Your task to perform on an android device: open app "Firefox Browser" (install if not already installed) Image 0: 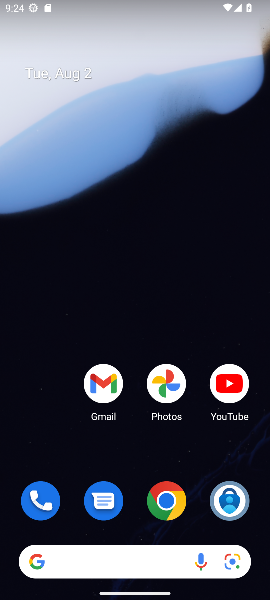
Step 0: drag from (132, 540) to (143, 174)
Your task to perform on an android device: open app "Firefox Browser" (install if not already installed) Image 1: 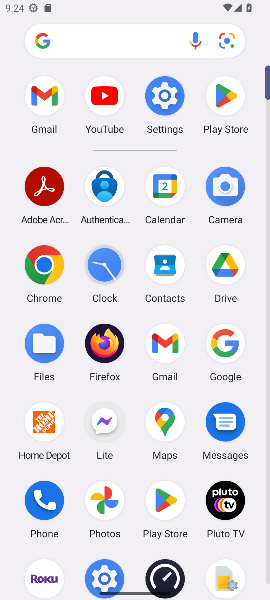
Step 1: click (220, 92)
Your task to perform on an android device: open app "Firefox Browser" (install if not already installed) Image 2: 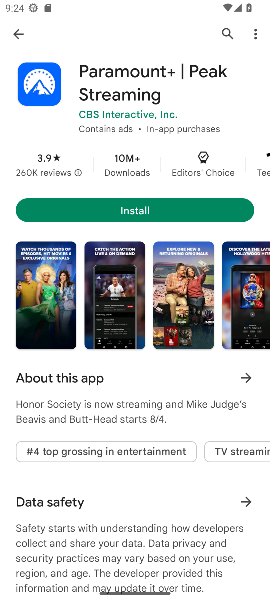
Step 2: click (226, 39)
Your task to perform on an android device: open app "Firefox Browser" (install if not already installed) Image 3: 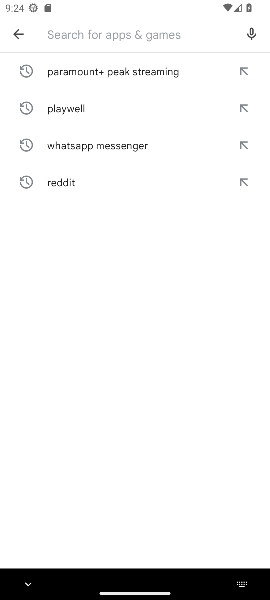
Step 3: type "Firefox Browser"
Your task to perform on an android device: open app "Firefox Browser" (install if not already installed) Image 4: 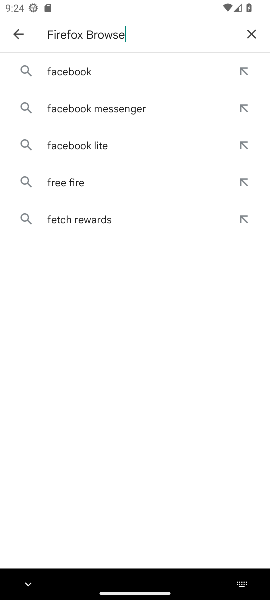
Step 4: type ""
Your task to perform on an android device: open app "Firefox Browser" (install if not already installed) Image 5: 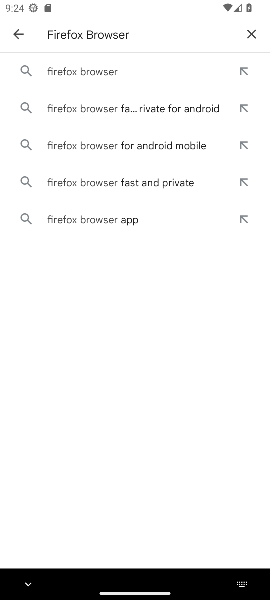
Step 5: click (64, 72)
Your task to perform on an android device: open app "Firefox Browser" (install if not already installed) Image 6: 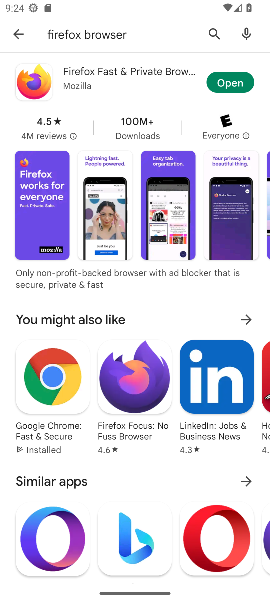
Step 6: click (74, 72)
Your task to perform on an android device: open app "Firefox Browser" (install if not already installed) Image 7: 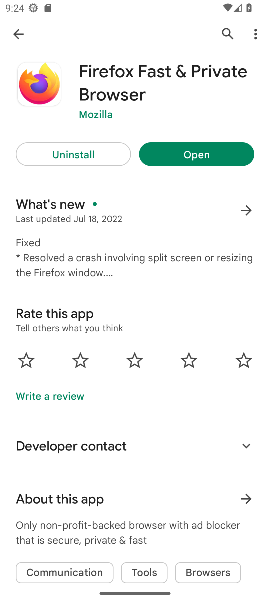
Step 7: click (197, 150)
Your task to perform on an android device: open app "Firefox Browser" (install if not already installed) Image 8: 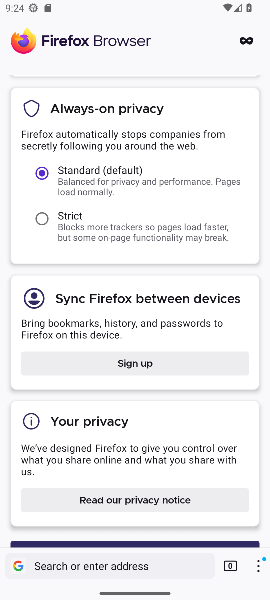
Step 8: task complete